Your task to perform on an android device: turn on improve location accuracy Image 0: 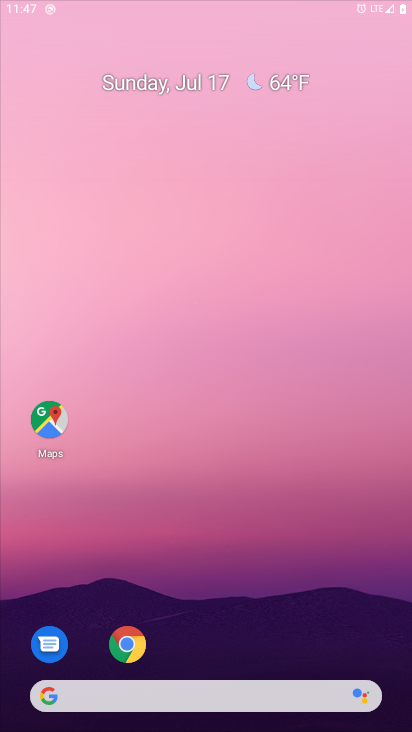
Step 0: press home button
Your task to perform on an android device: turn on improve location accuracy Image 1: 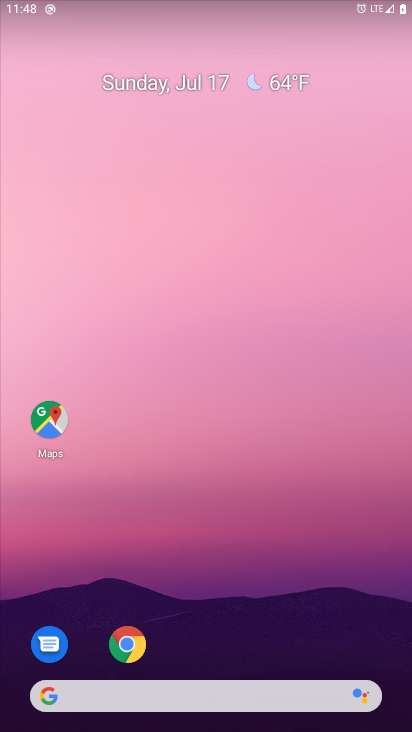
Step 1: drag from (260, 617) to (277, 118)
Your task to perform on an android device: turn on improve location accuracy Image 2: 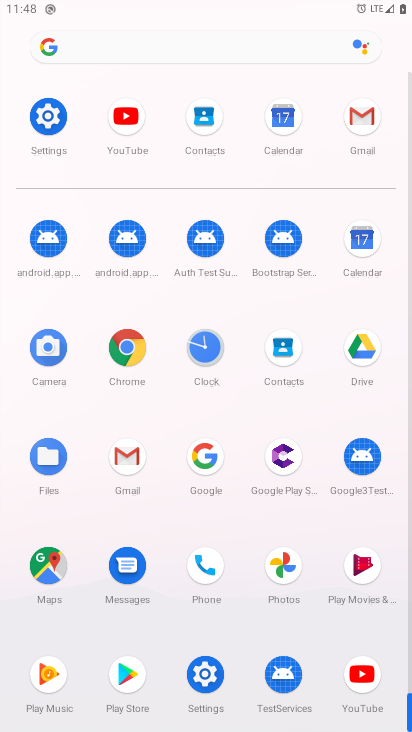
Step 2: click (51, 112)
Your task to perform on an android device: turn on improve location accuracy Image 3: 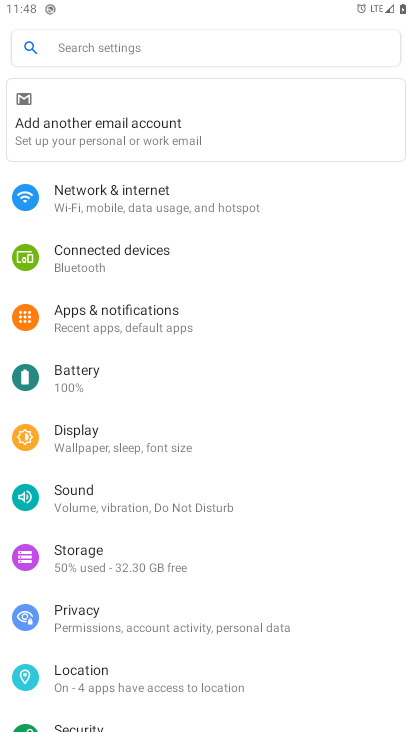
Step 3: click (133, 685)
Your task to perform on an android device: turn on improve location accuracy Image 4: 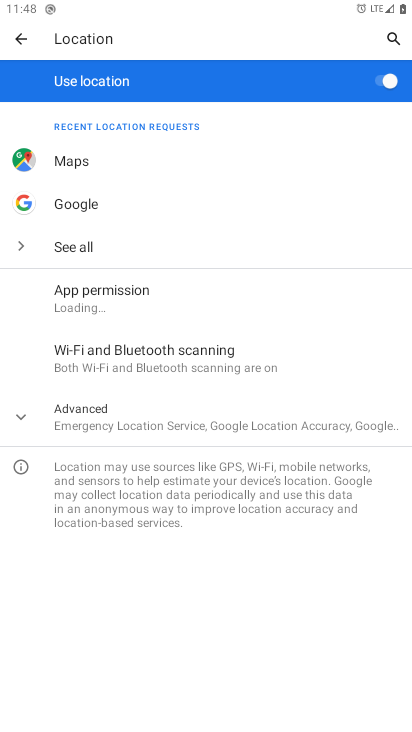
Step 4: click (29, 404)
Your task to perform on an android device: turn on improve location accuracy Image 5: 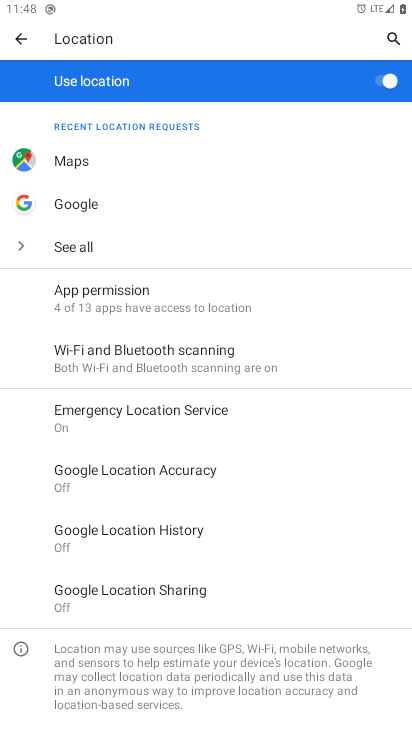
Step 5: click (195, 476)
Your task to perform on an android device: turn on improve location accuracy Image 6: 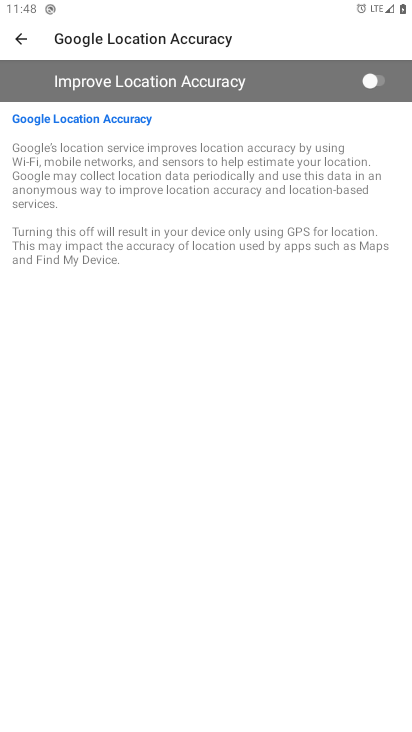
Step 6: click (369, 85)
Your task to perform on an android device: turn on improve location accuracy Image 7: 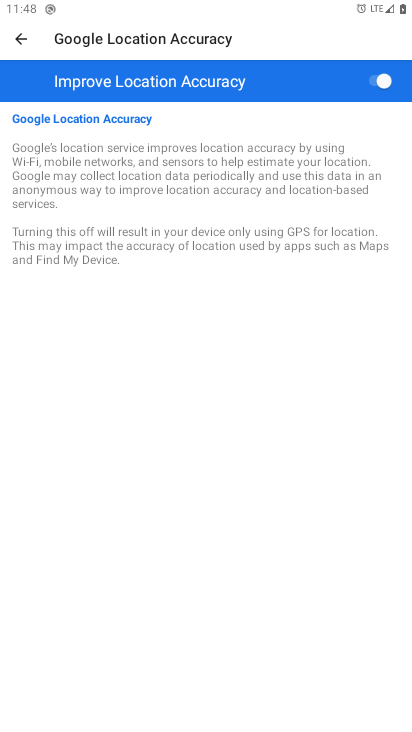
Step 7: task complete